Your task to perform on an android device: What's the weather today? Image 0: 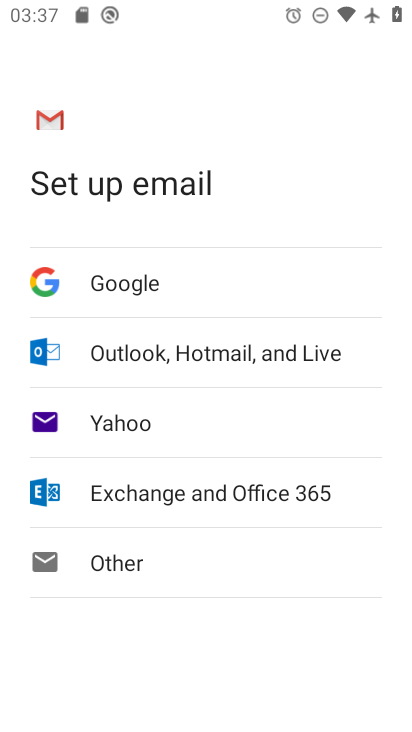
Step 0: press home button
Your task to perform on an android device: What's the weather today? Image 1: 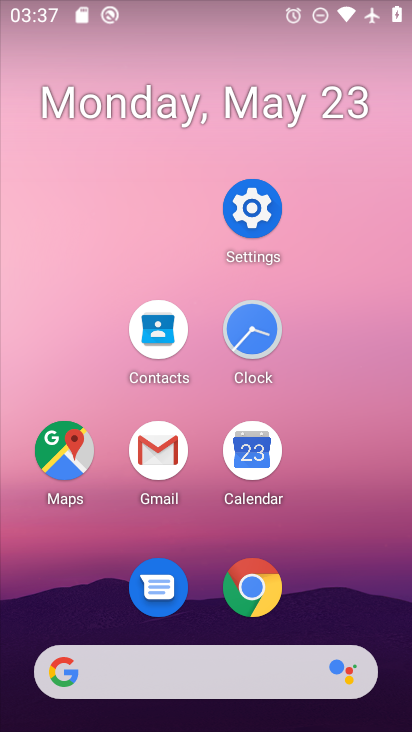
Step 1: click (255, 684)
Your task to perform on an android device: What's the weather today? Image 2: 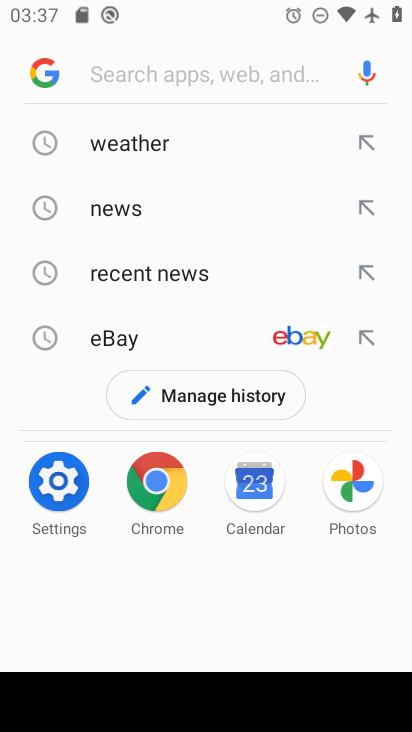
Step 2: click (185, 152)
Your task to perform on an android device: What's the weather today? Image 3: 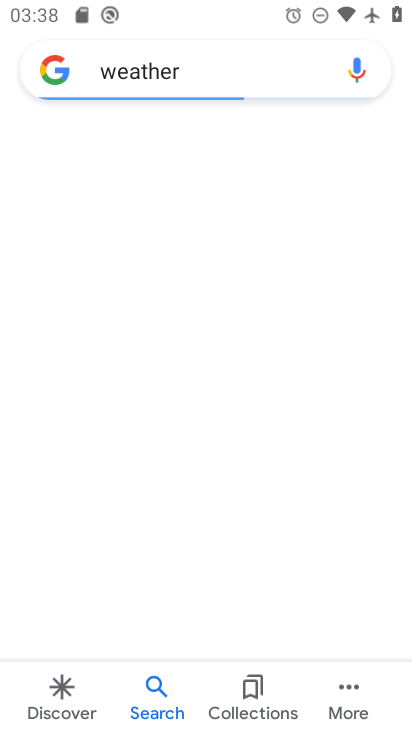
Step 3: task complete